Your task to perform on an android device: change alarm snooze length Image 0: 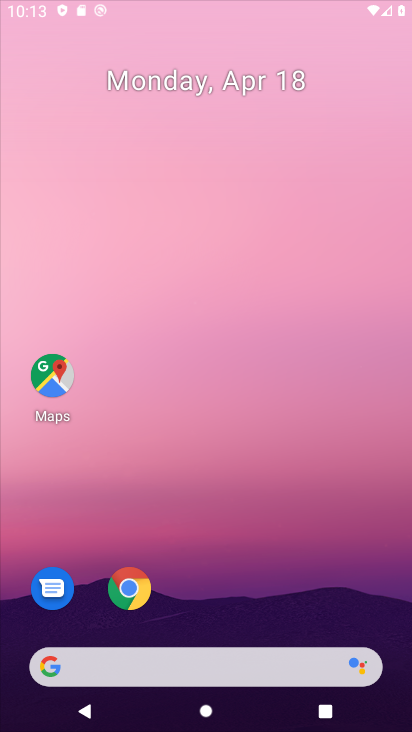
Step 0: drag from (253, 370) to (160, 32)
Your task to perform on an android device: change alarm snooze length Image 1: 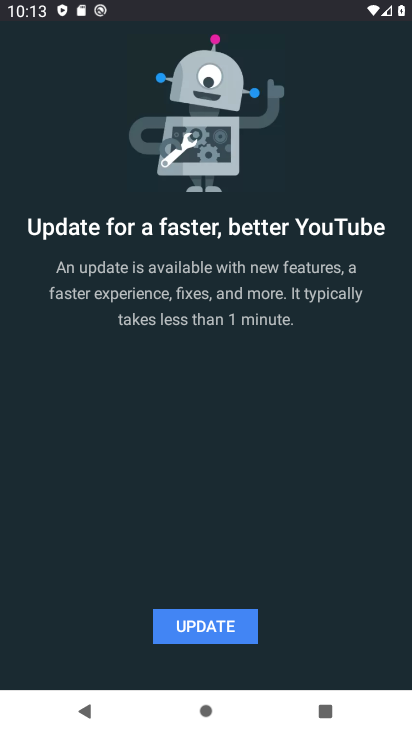
Step 1: press back button
Your task to perform on an android device: change alarm snooze length Image 2: 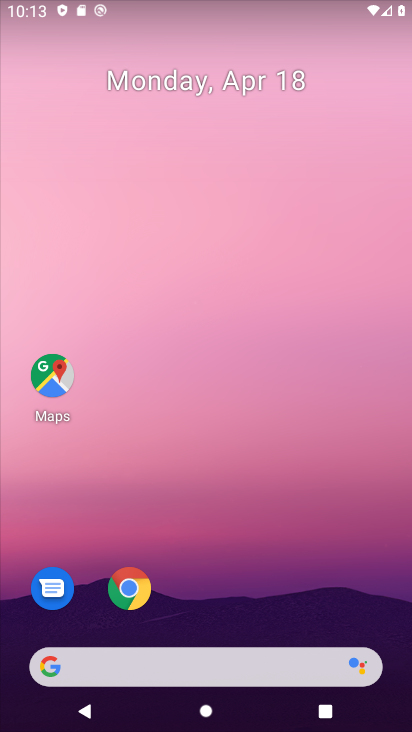
Step 2: drag from (288, 521) to (112, 33)
Your task to perform on an android device: change alarm snooze length Image 3: 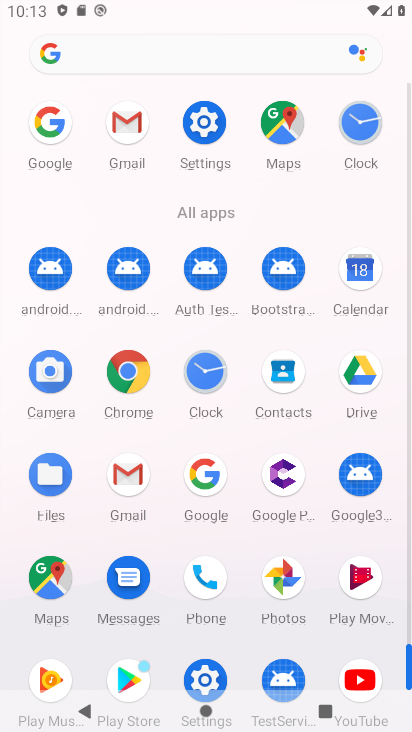
Step 3: drag from (12, 493) to (0, 257)
Your task to perform on an android device: change alarm snooze length Image 4: 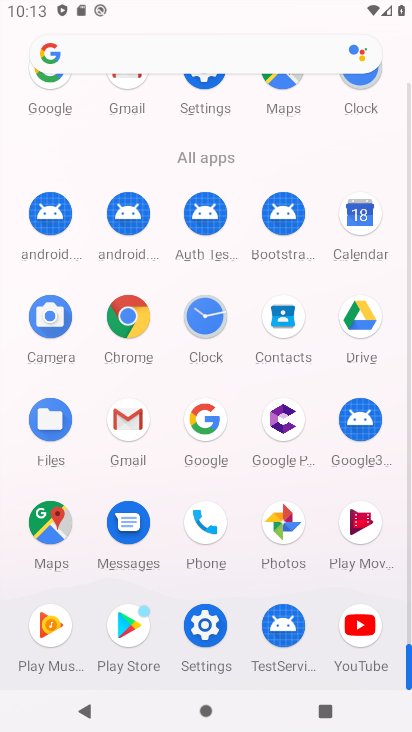
Step 4: click (209, 314)
Your task to perform on an android device: change alarm snooze length Image 5: 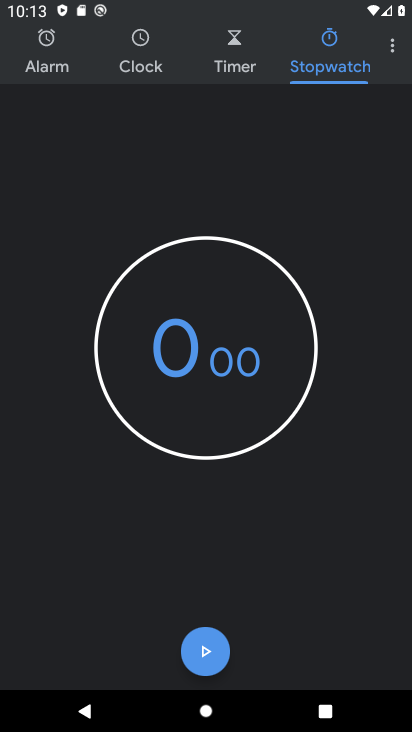
Step 5: click (395, 48)
Your task to perform on an android device: change alarm snooze length Image 6: 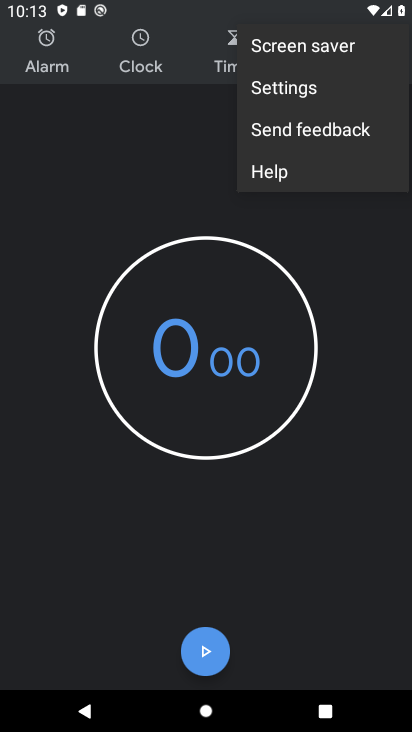
Step 6: click (328, 86)
Your task to perform on an android device: change alarm snooze length Image 7: 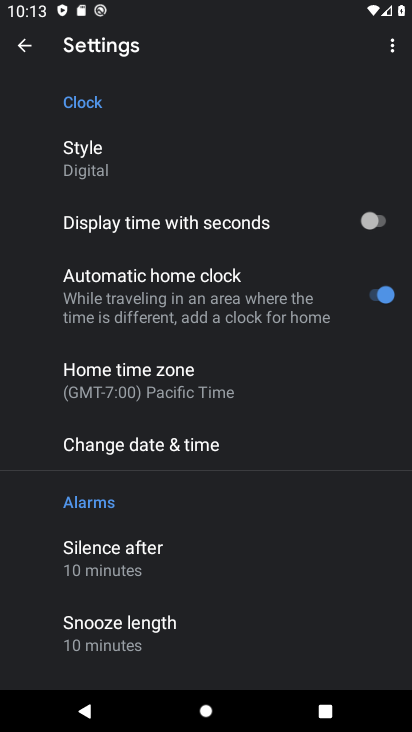
Step 7: click (172, 627)
Your task to perform on an android device: change alarm snooze length Image 8: 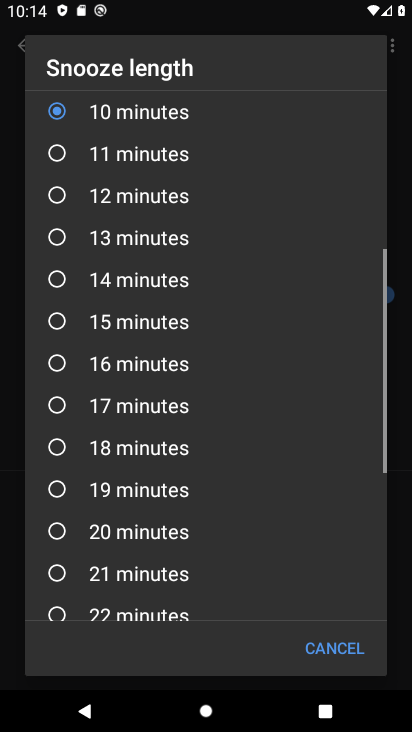
Step 8: click (128, 156)
Your task to perform on an android device: change alarm snooze length Image 9: 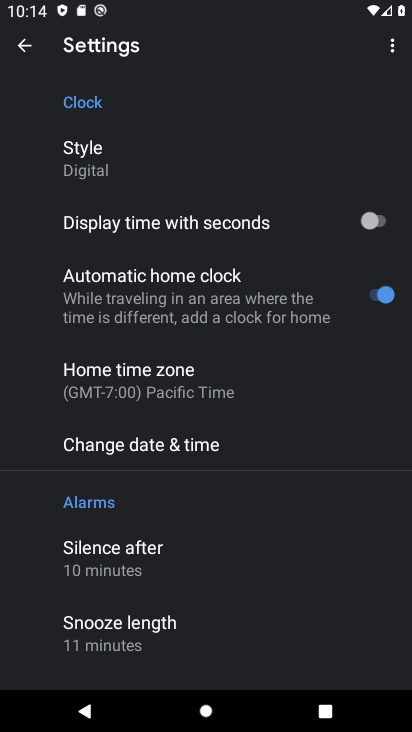
Step 9: task complete